Your task to perform on an android device: Go to display settings Image 0: 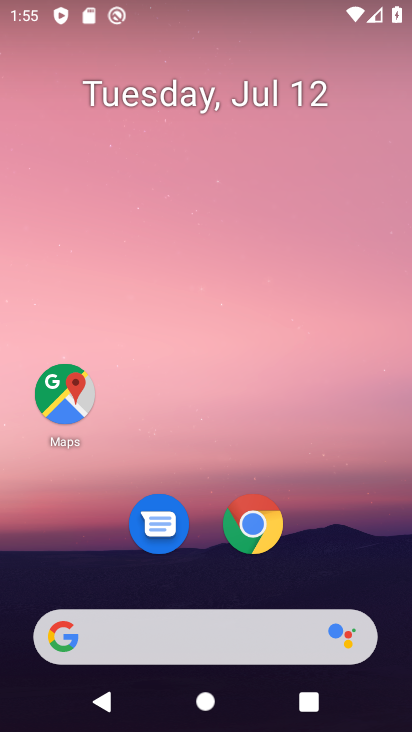
Step 0: drag from (331, 531) to (306, 1)
Your task to perform on an android device: Go to display settings Image 1: 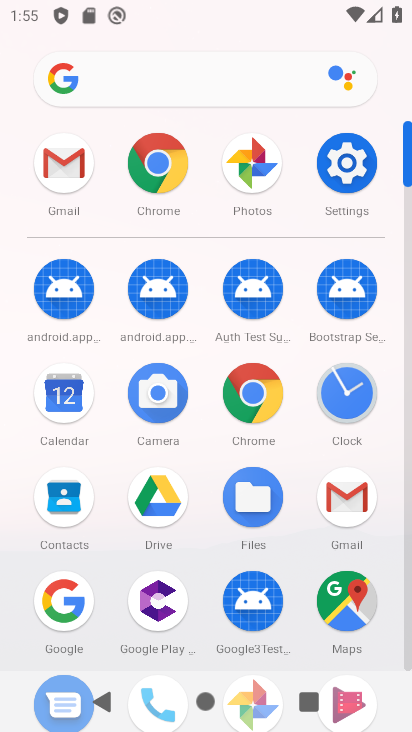
Step 1: click (349, 159)
Your task to perform on an android device: Go to display settings Image 2: 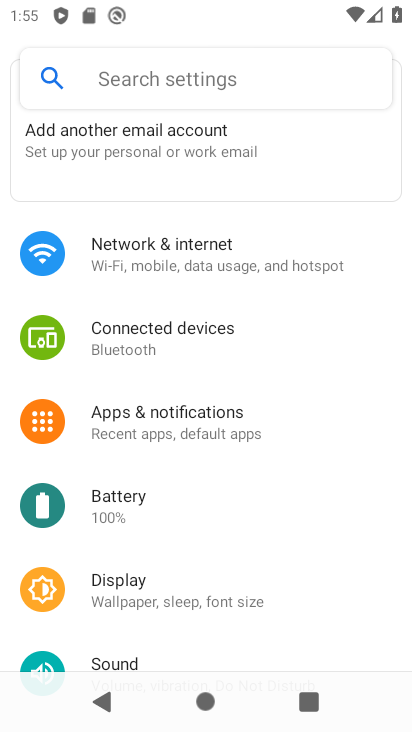
Step 2: click (142, 587)
Your task to perform on an android device: Go to display settings Image 3: 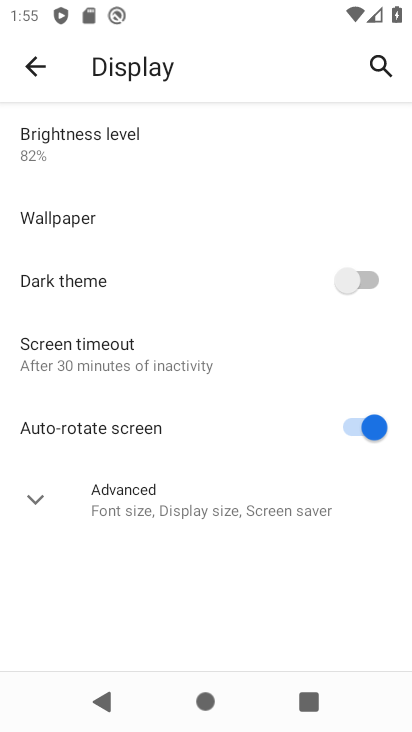
Step 3: click (34, 491)
Your task to perform on an android device: Go to display settings Image 4: 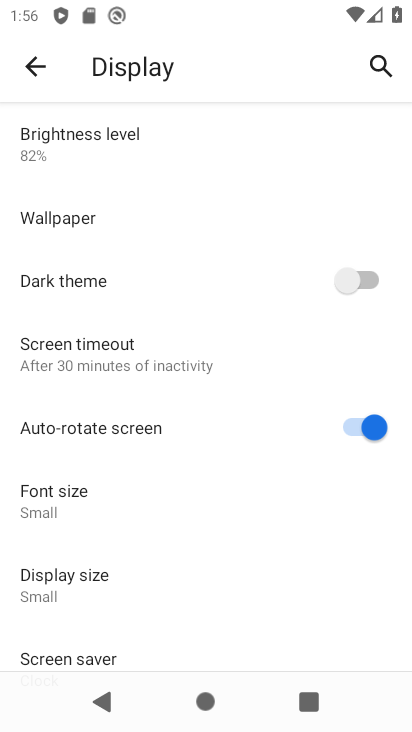
Step 4: task complete